Your task to perform on an android device: move a message to another label in the gmail app Image 0: 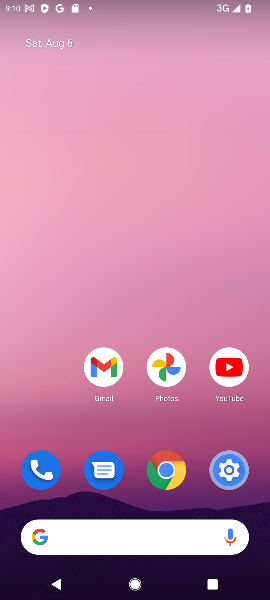
Step 0: drag from (138, 545) to (189, 166)
Your task to perform on an android device: move a message to another label in the gmail app Image 1: 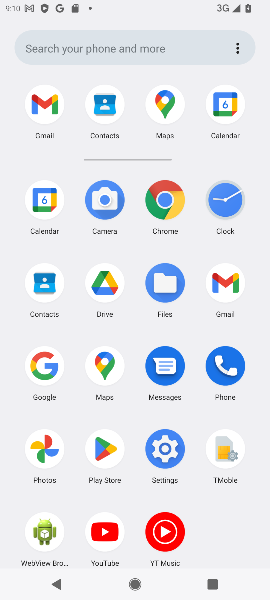
Step 1: click (228, 297)
Your task to perform on an android device: move a message to another label in the gmail app Image 2: 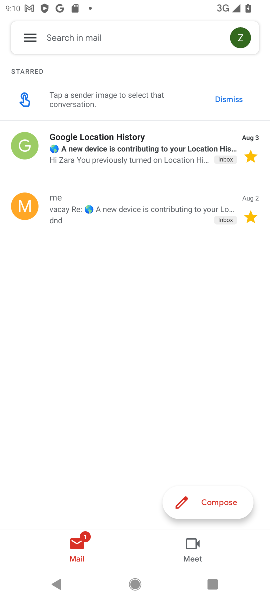
Step 2: click (157, 154)
Your task to perform on an android device: move a message to another label in the gmail app Image 3: 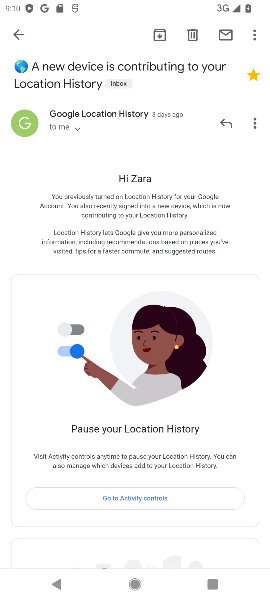
Step 3: click (256, 36)
Your task to perform on an android device: move a message to another label in the gmail app Image 4: 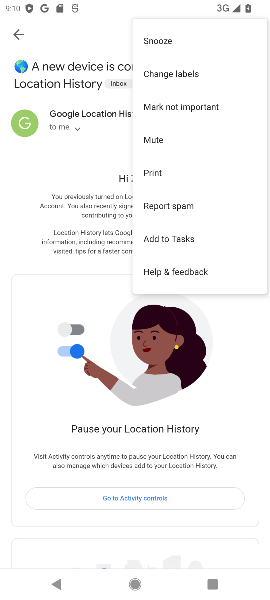
Step 4: click (185, 67)
Your task to perform on an android device: move a message to another label in the gmail app Image 5: 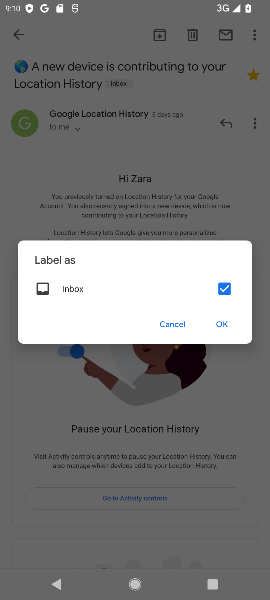
Step 5: click (222, 284)
Your task to perform on an android device: move a message to another label in the gmail app Image 6: 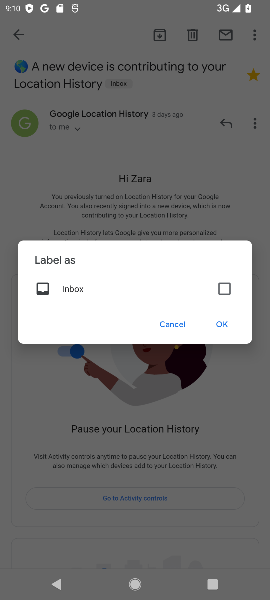
Step 6: click (227, 325)
Your task to perform on an android device: move a message to another label in the gmail app Image 7: 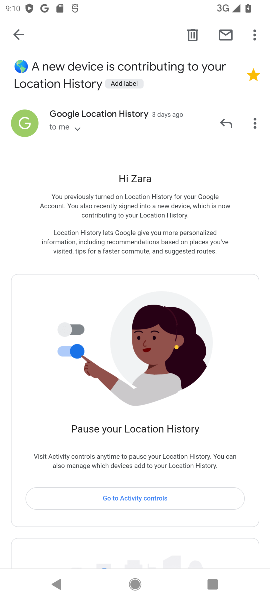
Step 7: task complete